Your task to perform on an android device: turn on data saver in the chrome app Image 0: 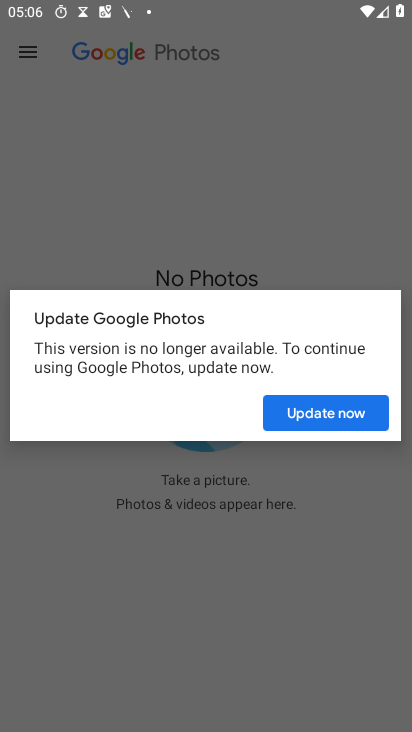
Step 0: press home button
Your task to perform on an android device: turn on data saver in the chrome app Image 1: 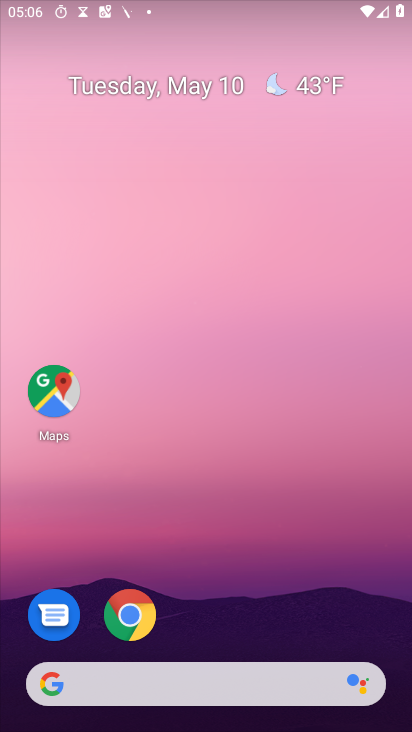
Step 1: drag from (343, 669) to (293, 60)
Your task to perform on an android device: turn on data saver in the chrome app Image 2: 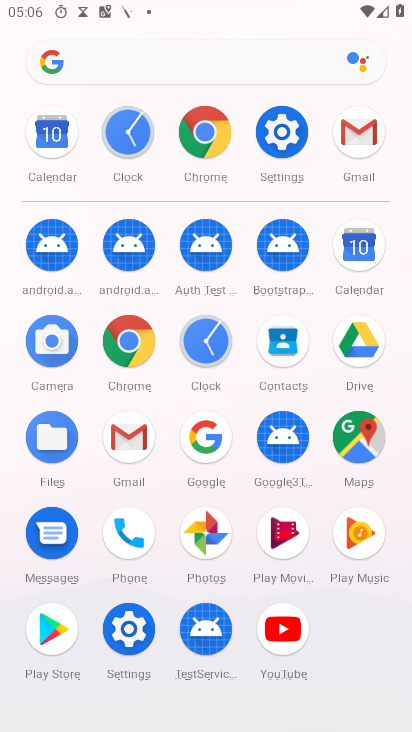
Step 2: click (143, 337)
Your task to perform on an android device: turn on data saver in the chrome app Image 3: 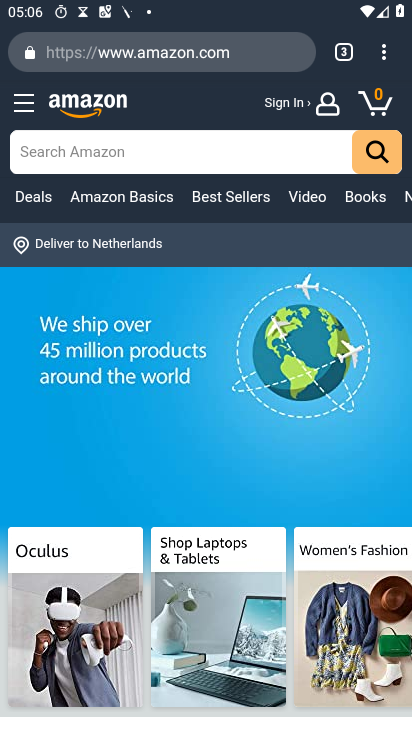
Step 3: drag from (381, 49) to (315, 219)
Your task to perform on an android device: turn on data saver in the chrome app Image 4: 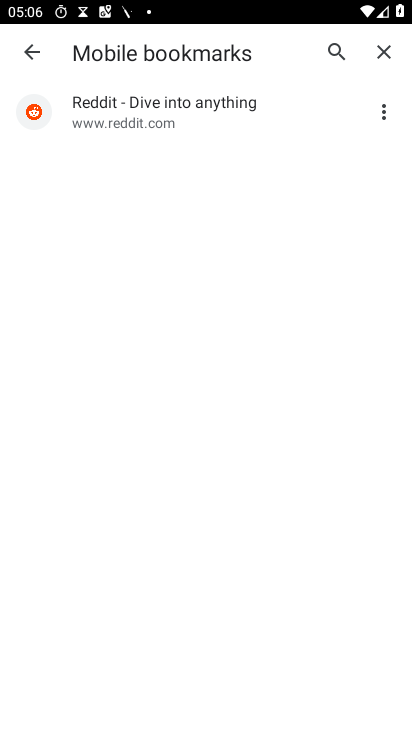
Step 4: press home button
Your task to perform on an android device: turn on data saver in the chrome app Image 5: 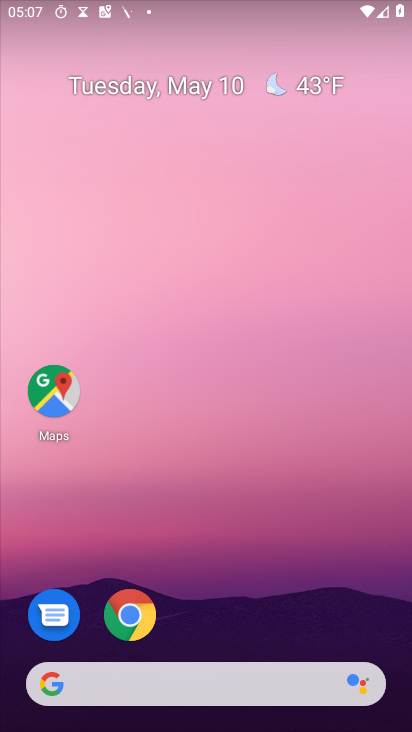
Step 5: drag from (252, 642) to (327, 192)
Your task to perform on an android device: turn on data saver in the chrome app Image 6: 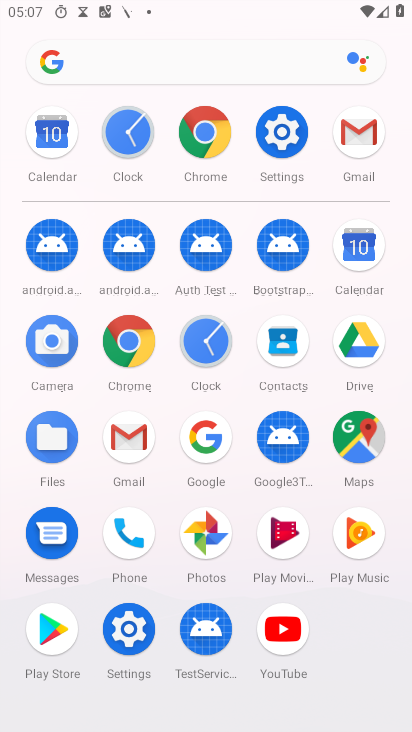
Step 6: click (128, 337)
Your task to perform on an android device: turn on data saver in the chrome app Image 7: 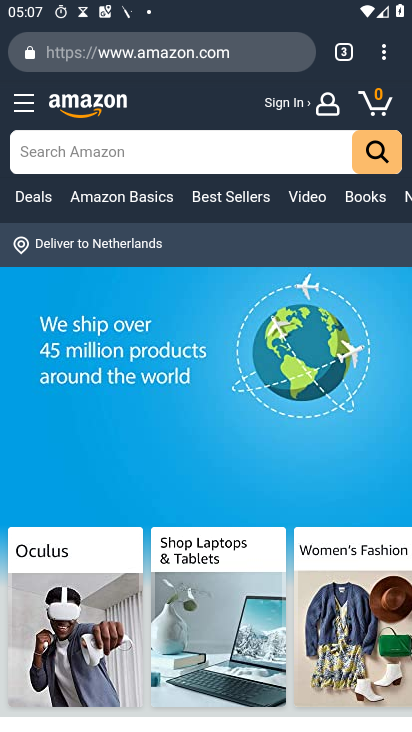
Step 7: drag from (382, 54) to (231, 636)
Your task to perform on an android device: turn on data saver in the chrome app Image 8: 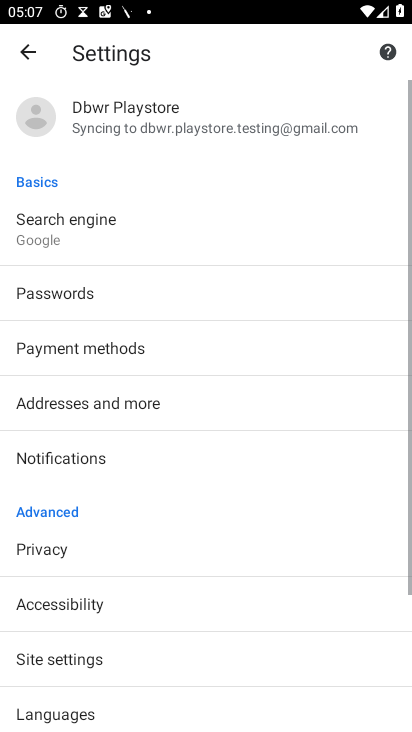
Step 8: drag from (229, 640) to (271, 188)
Your task to perform on an android device: turn on data saver in the chrome app Image 9: 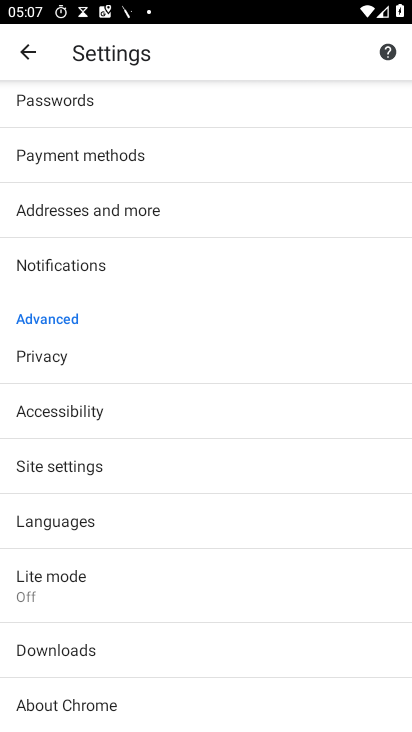
Step 9: click (131, 605)
Your task to perform on an android device: turn on data saver in the chrome app Image 10: 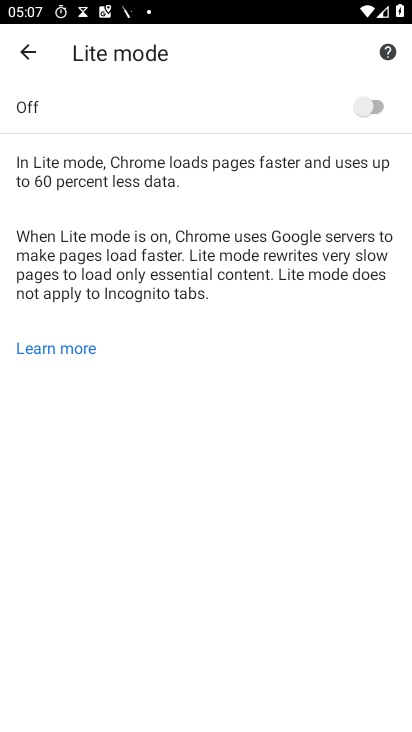
Step 10: click (380, 108)
Your task to perform on an android device: turn on data saver in the chrome app Image 11: 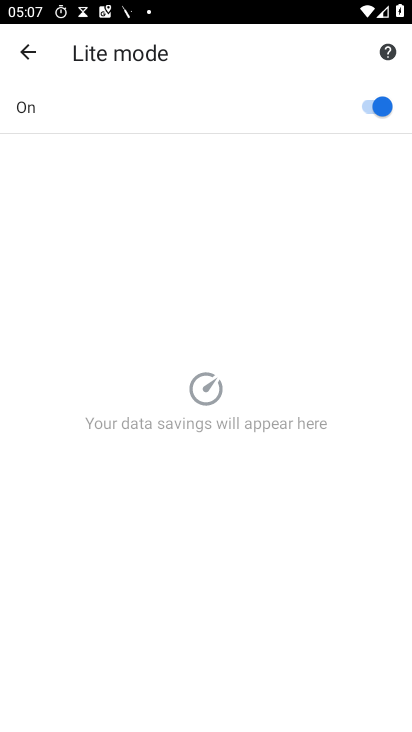
Step 11: task complete